Your task to perform on an android device: Open calendar and show me the first week of next month Image 0: 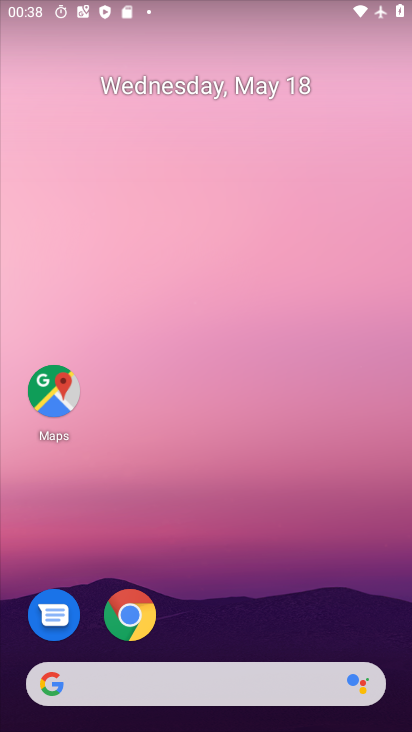
Step 0: drag from (202, 634) to (186, 257)
Your task to perform on an android device: Open calendar and show me the first week of next month Image 1: 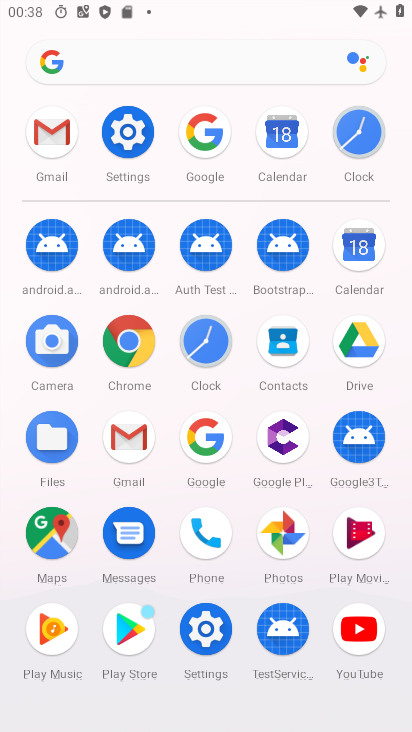
Step 1: click (339, 253)
Your task to perform on an android device: Open calendar and show me the first week of next month Image 2: 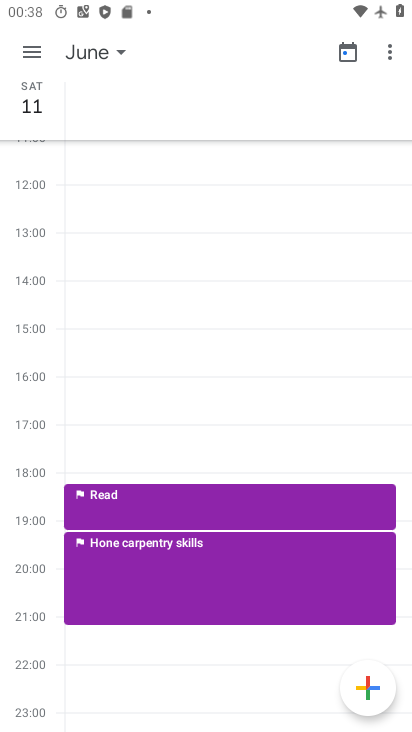
Step 2: click (119, 49)
Your task to perform on an android device: Open calendar and show me the first week of next month Image 3: 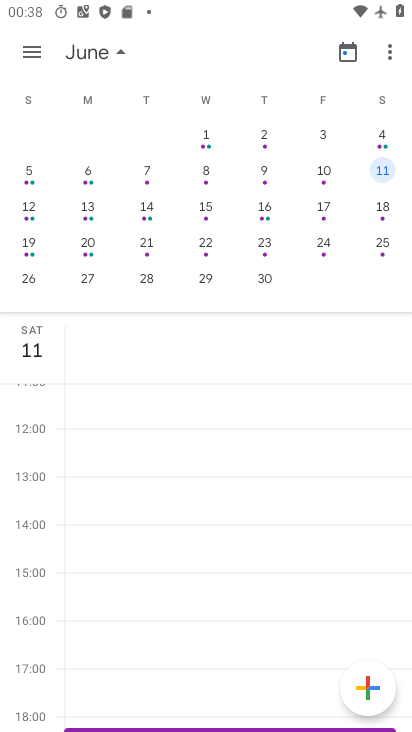
Step 3: task complete